Your task to perform on an android device: Show me recent news Image 0: 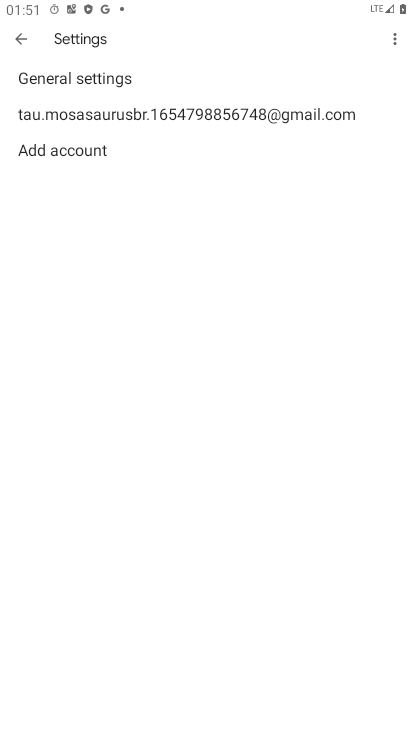
Step 0: press home button
Your task to perform on an android device: Show me recent news Image 1: 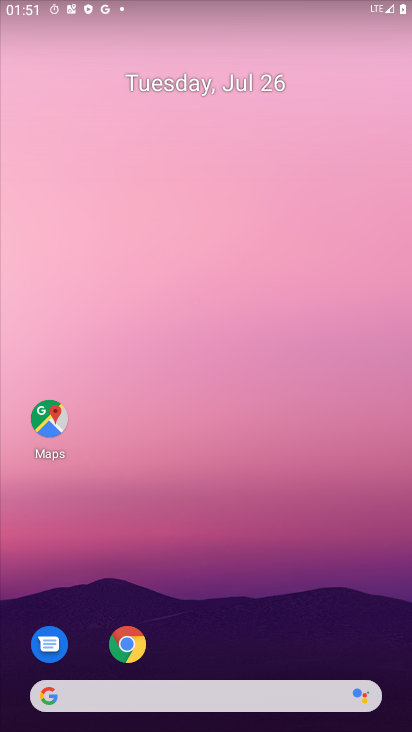
Step 1: click (143, 696)
Your task to perform on an android device: Show me recent news Image 2: 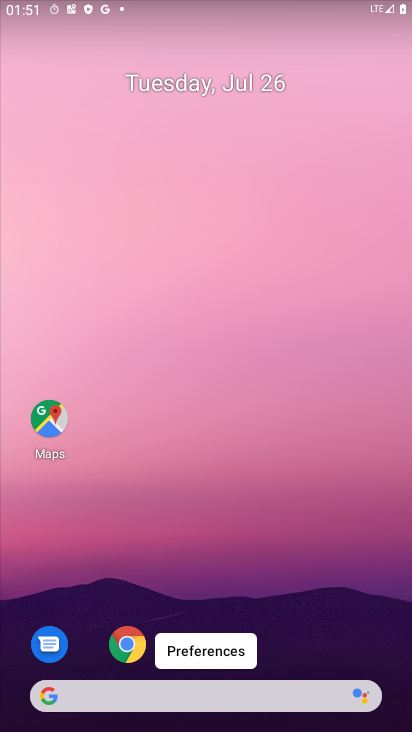
Step 2: click (144, 692)
Your task to perform on an android device: Show me recent news Image 3: 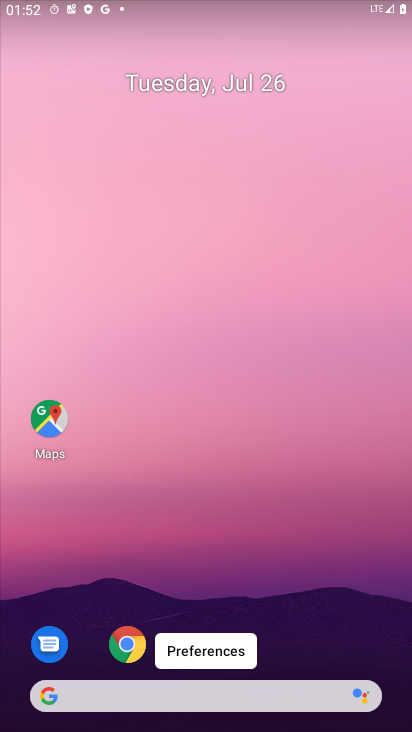
Step 3: click (119, 708)
Your task to perform on an android device: Show me recent news Image 4: 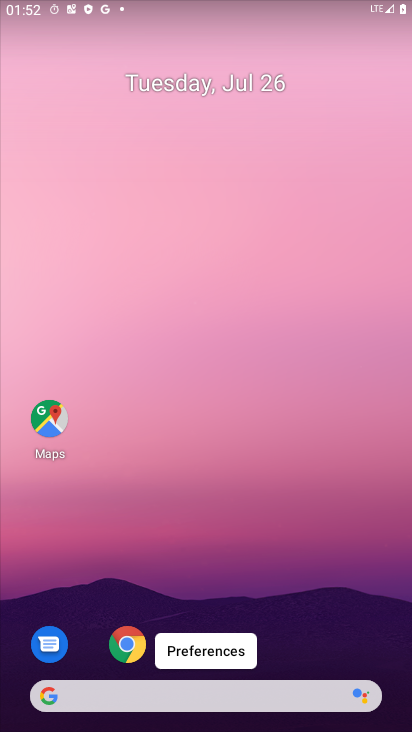
Step 4: click (104, 696)
Your task to perform on an android device: Show me recent news Image 5: 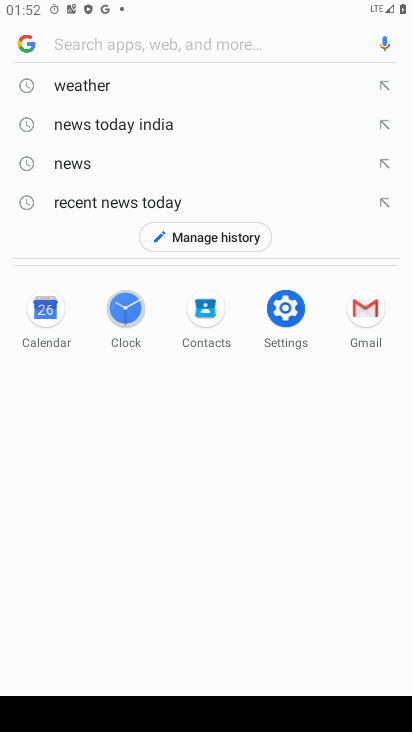
Step 5: click (87, 46)
Your task to perform on an android device: Show me recent news Image 6: 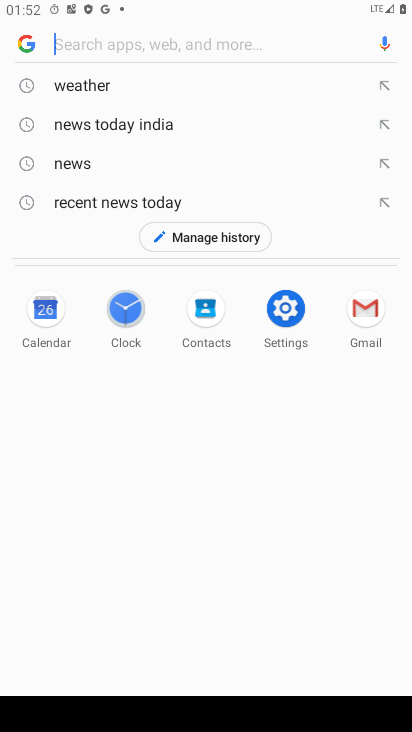
Step 6: drag from (188, 203) to (84, 199)
Your task to perform on an android device: Show me recent news Image 7: 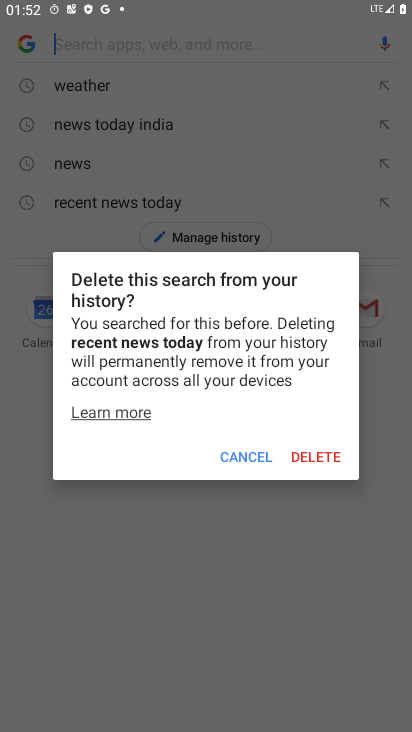
Step 7: click (245, 461)
Your task to perform on an android device: Show me recent news Image 8: 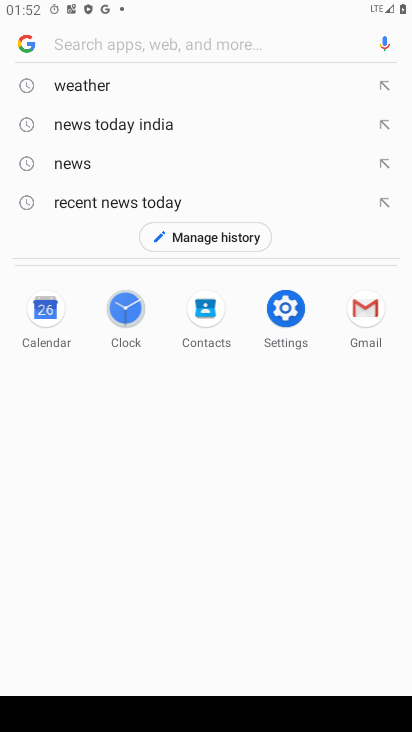
Step 8: click (130, 206)
Your task to perform on an android device: Show me recent news Image 9: 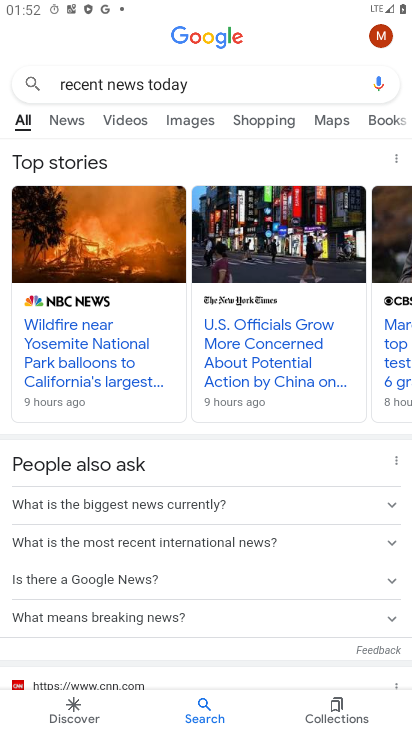
Step 9: drag from (261, 239) to (5, 203)
Your task to perform on an android device: Show me recent news Image 10: 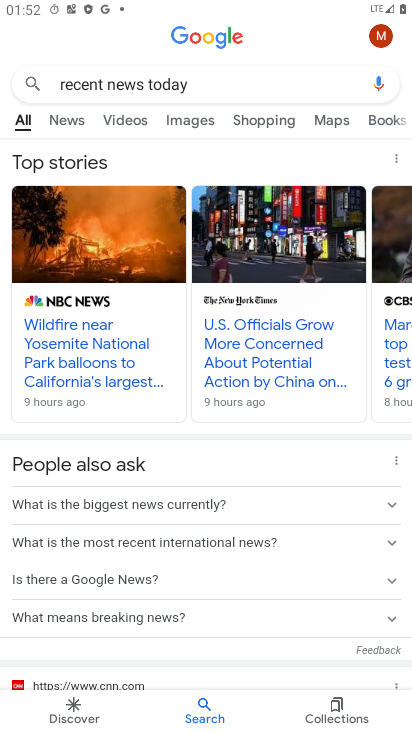
Step 10: click (72, 126)
Your task to perform on an android device: Show me recent news Image 11: 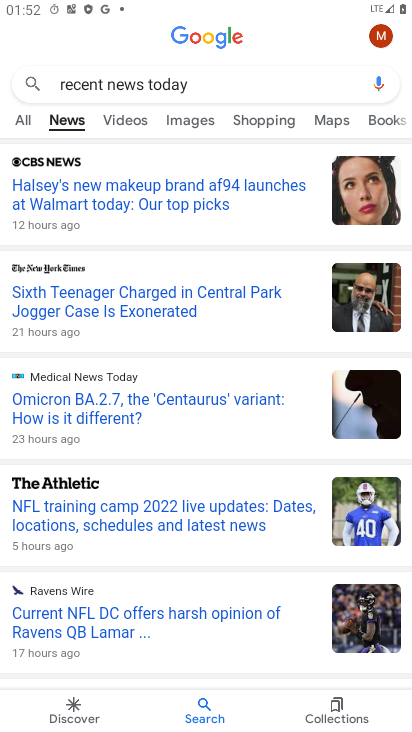
Step 11: drag from (193, 582) to (195, 260)
Your task to perform on an android device: Show me recent news Image 12: 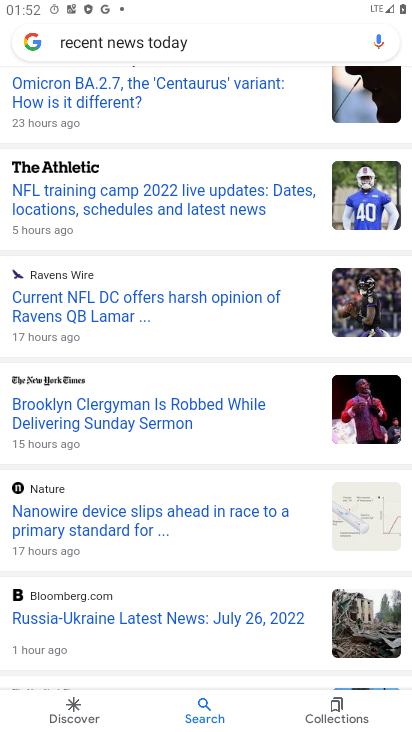
Step 12: drag from (167, 550) to (183, 284)
Your task to perform on an android device: Show me recent news Image 13: 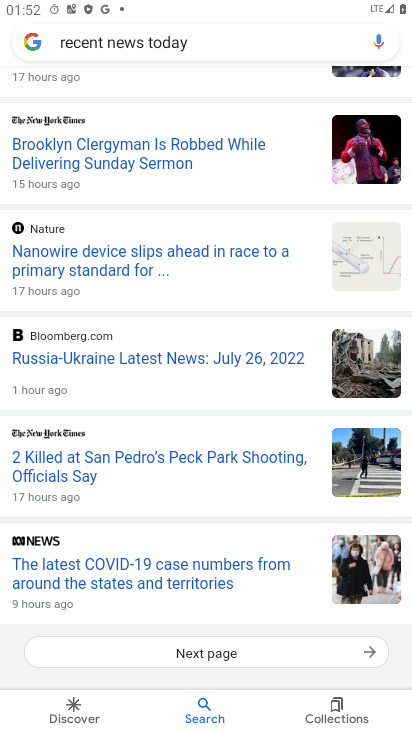
Step 13: click (58, 374)
Your task to perform on an android device: Show me recent news Image 14: 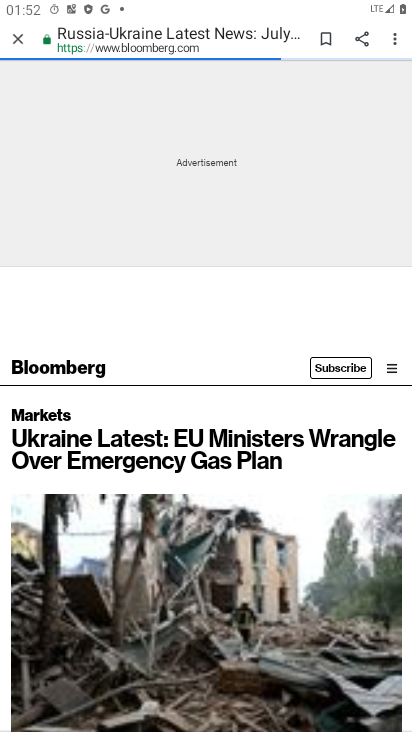
Step 14: task complete